Your task to perform on an android device: What's on my calendar tomorrow? Image 0: 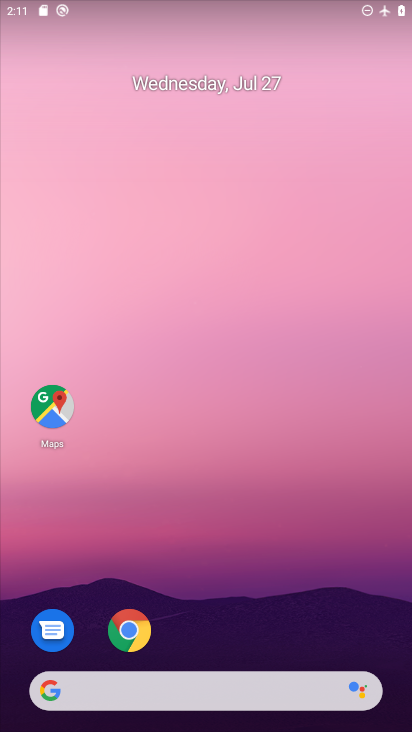
Step 0: drag from (374, 643) to (334, 211)
Your task to perform on an android device: What's on my calendar tomorrow? Image 1: 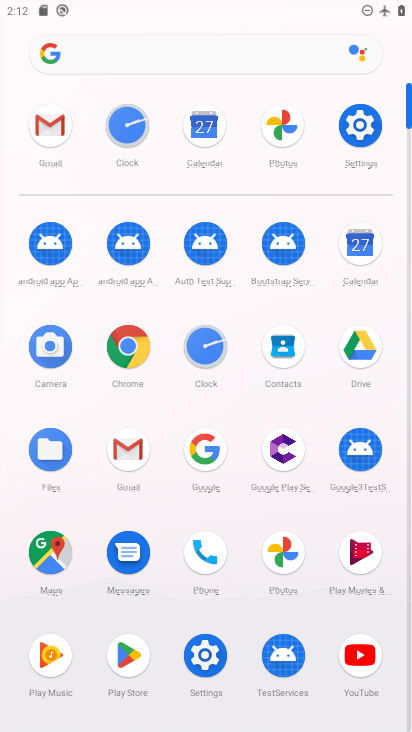
Step 1: click (358, 241)
Your task to perform on an android device: What's on my calendar tomorrow? Image 2: 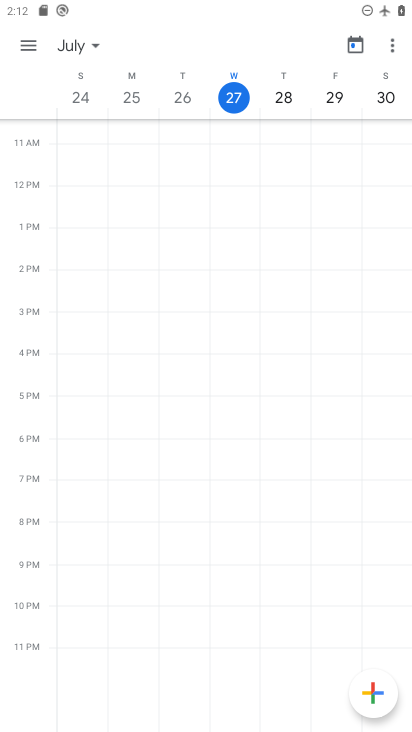
Step 2: click (91, 41)
Your task to perform on an android device: What's on my calendar tomorrow? Image 3: 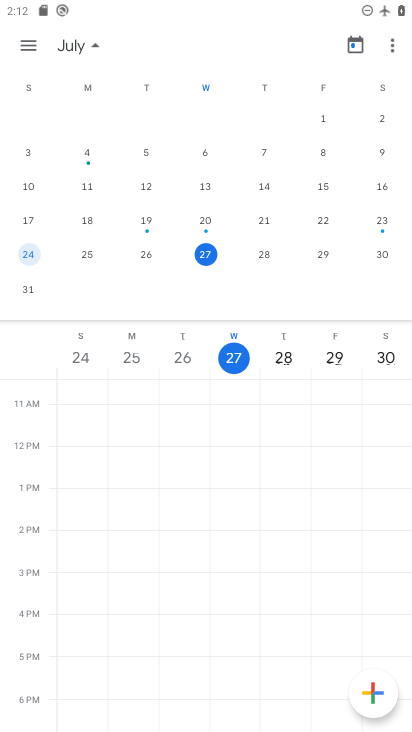
Step 3: click (31, 44)
Your task to perform on an android device: What's on my calendar tomorrow? Image 4: 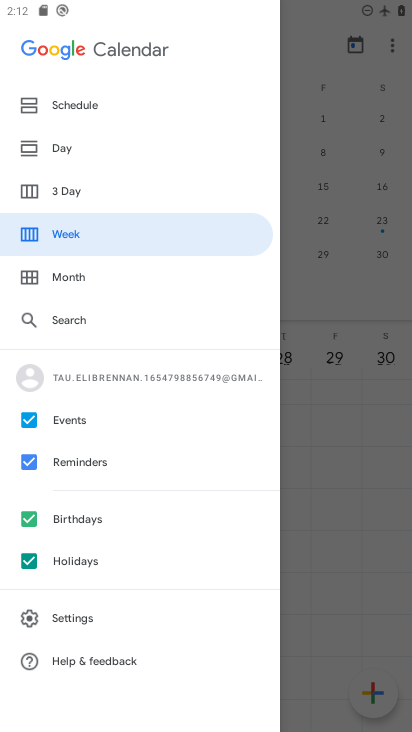
Step 4: click (62, 143)
Your task to perform on an android device: What's on my calendar tomorrow? Image 5: 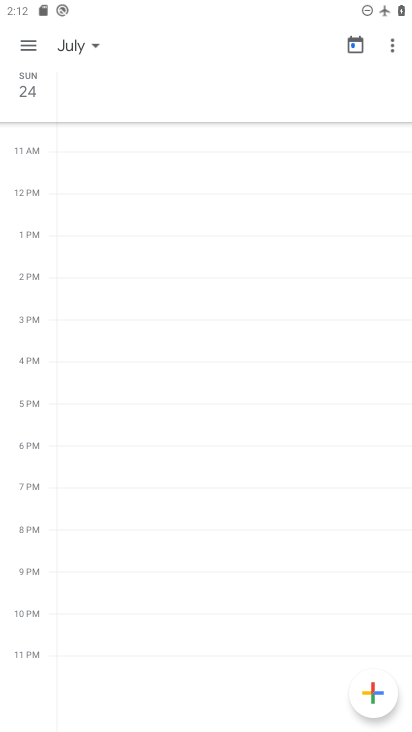
Step 5: click (96, 45)
Your task to perform on an android device: What's on my calendar tomorrow? Image 6: 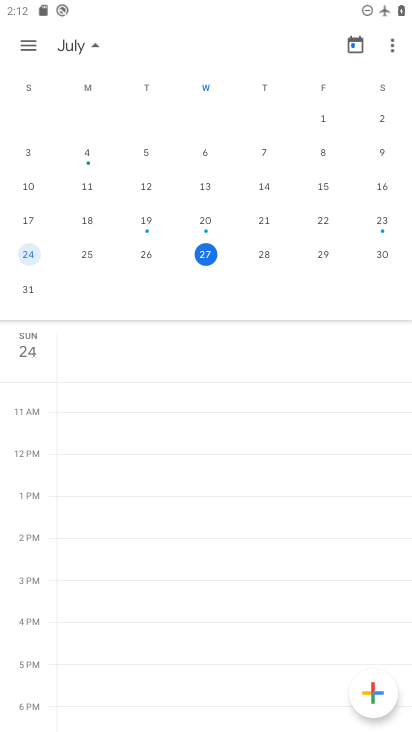
Step 6: click (263, 253)
Your task to perform on an android device: What's on my calendar tomorrow? Image 7: 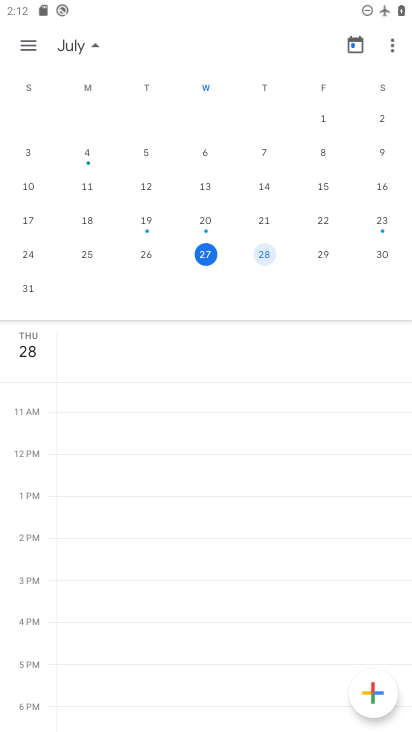
Step 7: task complete